Your task to perform on an android device: Go to Yahoo.com Image 0: 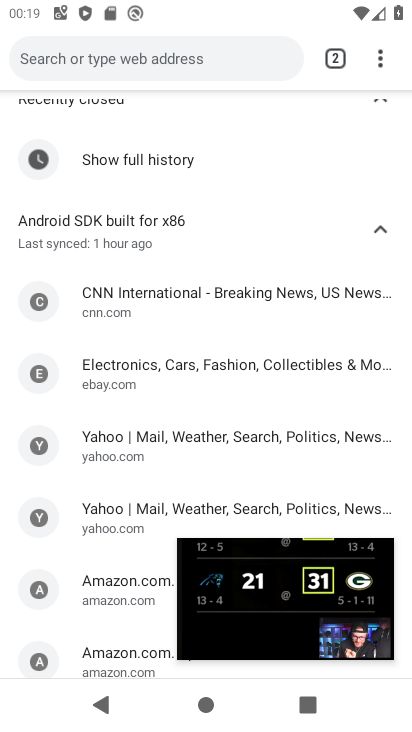
Step 0: click (364, 569)
Your task to perform on an android device: Go to Yahoo.com Image 1: 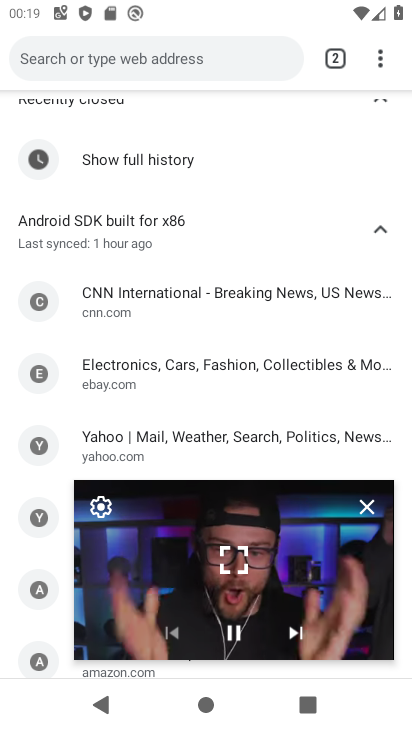
Step 1: click (362, 512)
Your task to perform on an android device: Go to Yahoo.com Image 2: 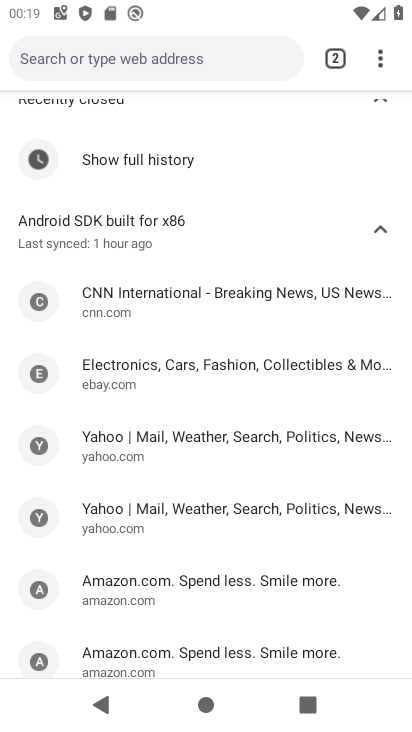
Step 2: drag from (233, 129) to (241, 580)
Your task to perform on an android device: Go to Yahoo.com Image 3: 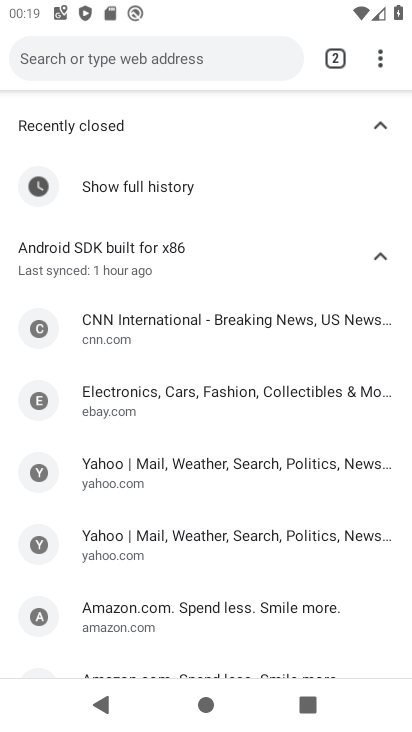
Step 3: click (220, 46)
Your task to perform on an android device: Go to Yahoo.com Image 4: 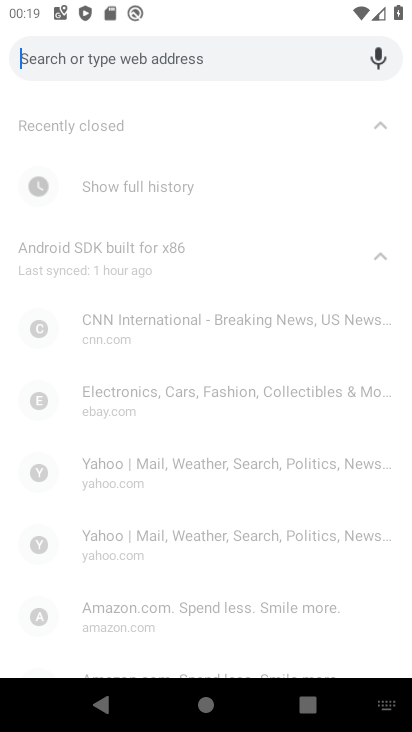
Step 4: type "yahoo.com"
Your task to perform on an android device: Go to Yahoo.com Image 5: 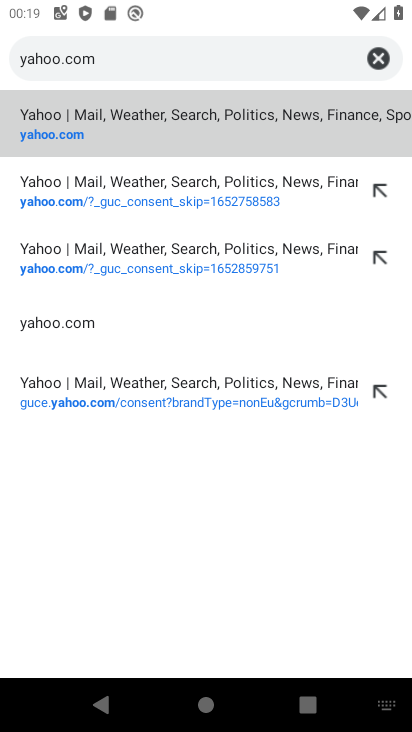
Step 5: click (54, 117)
Your task to perform on an android device: Go to Yahoo.com Image 6: 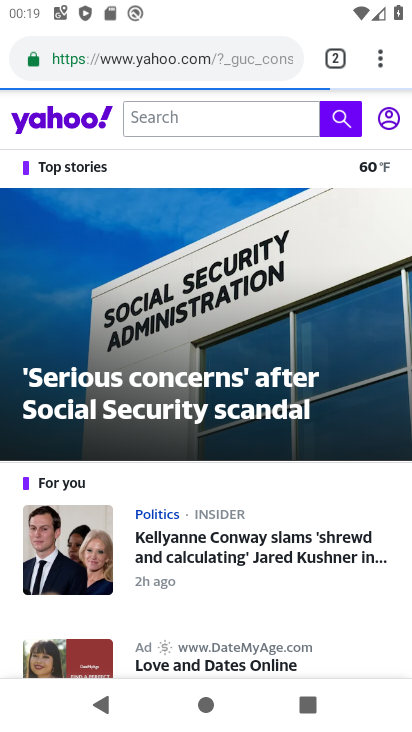
Step 6: task complete